Your task to perform on an android device: Go to settings Image 0: 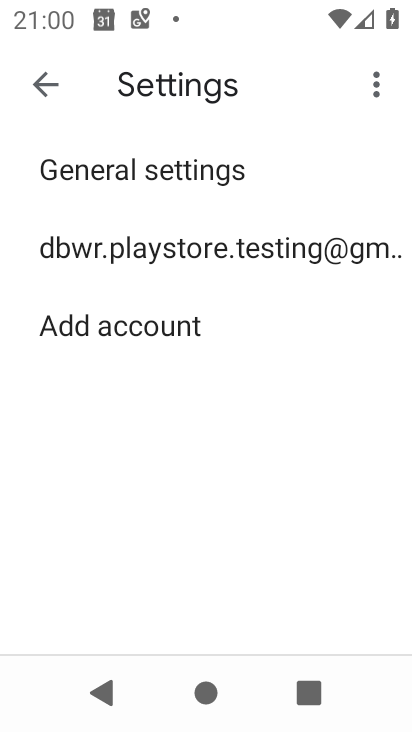
Step 0: press home button
Your task to perform on an android device: Go to settings Image 1: 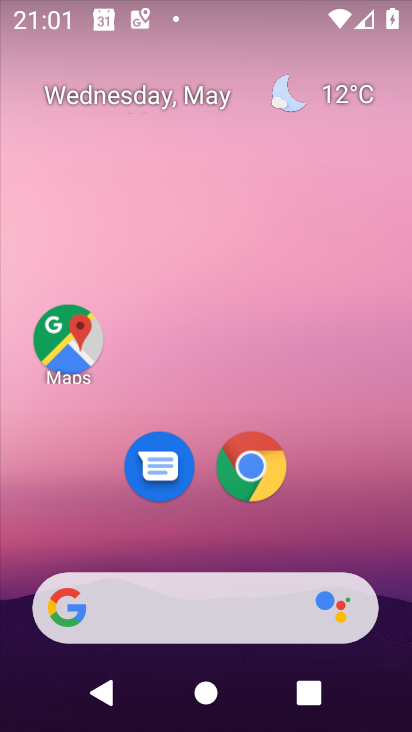
Step 1: drag from (209, 533) to (267, 135)
Your task to perform on an android device: Go to settings Image 2: 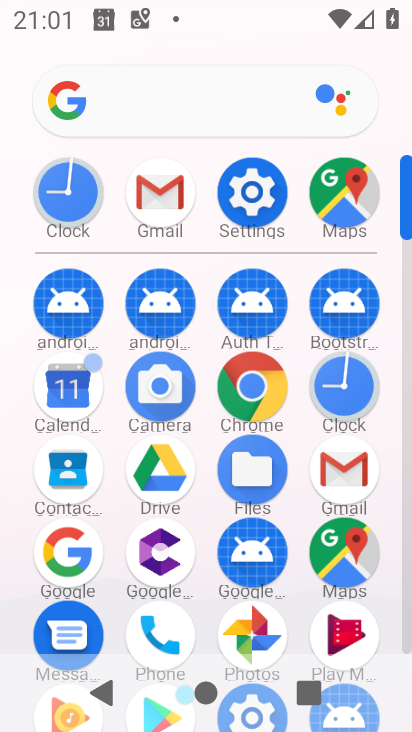
Step 2: click (244, 188)
Your task to perform on an android device: Go to settings Image 3: 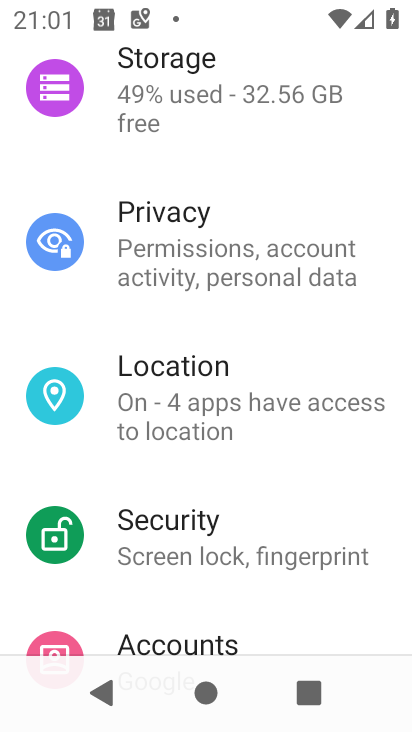
Step 3: task complete